Your task to perform on an android device: manage bookmarks in the chrome app Image 0: 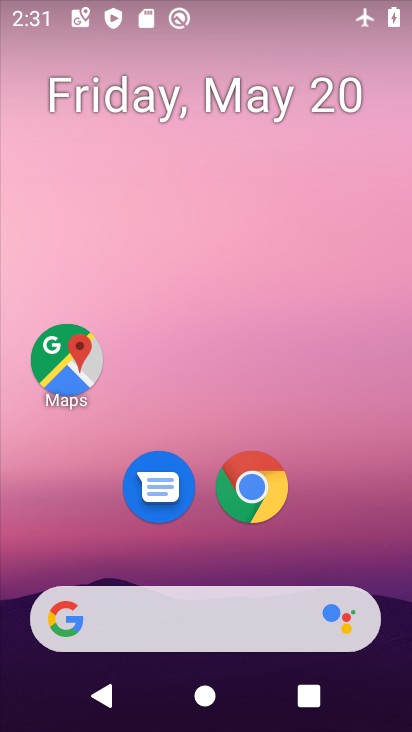
Step 0: drag from (324, 557) to (296, 66)
Your task to perform on an android device: manage bookmarks in the chrome app Image 1: 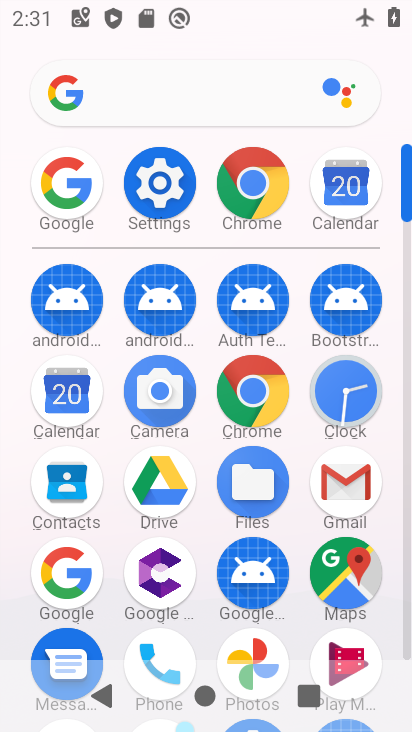
Step 1: click (256, 180)
Your task to perform on an android device: manage bookmarks in the chrome app Image 2: 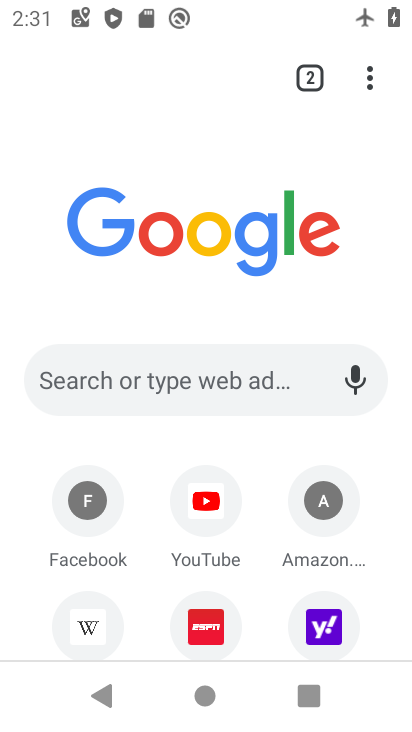
Step 2: task complete